Your task to perform on an android device: open wifi settings Image 0: 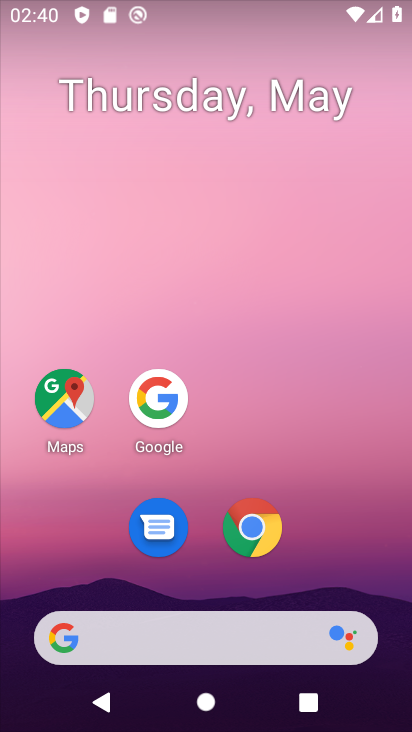
Step 0: drag from (189, 575) to (254, 195)
Your task to perform on an android device: open wifi settings Image 1: 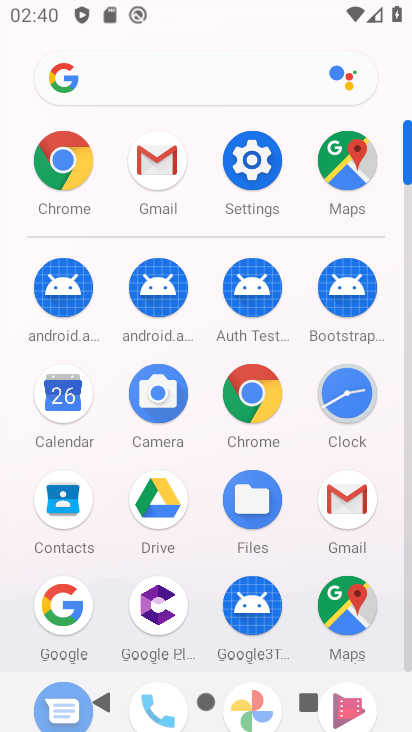
Step 1: click (257, 151)
Your task to perform on an android device: open wifi settings Image 2: 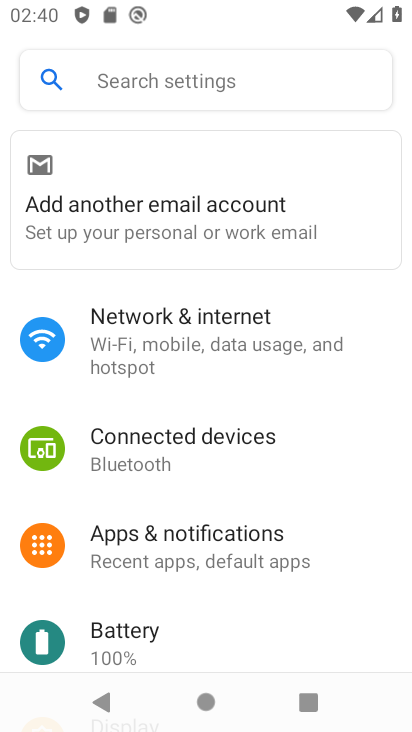
Step 2: click (110, 339)
Your task to perform on an android device: open wifi settings Image 3: 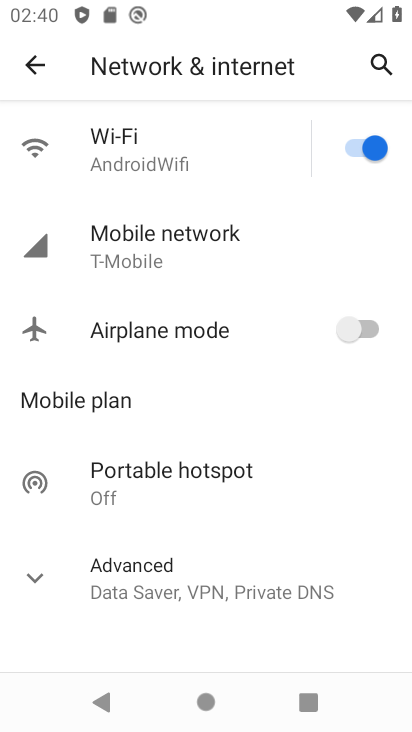
Step 3: click (180, 174)
Your task to perform on an android device: open wifi settings Image 4: 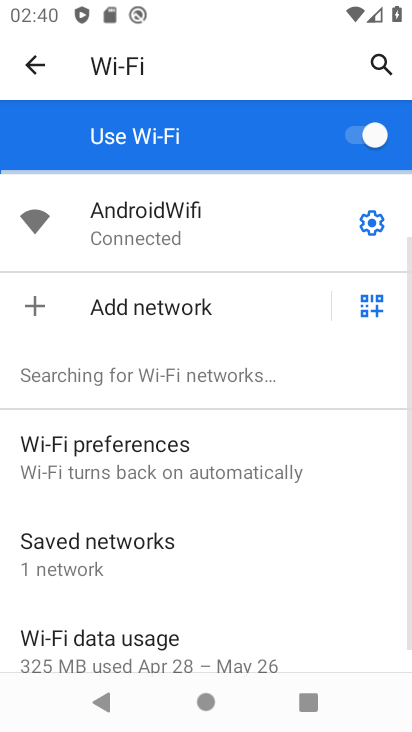
Step 4: click (368, 225)
Your task to perform on an android device: open wifi settings Image 5: 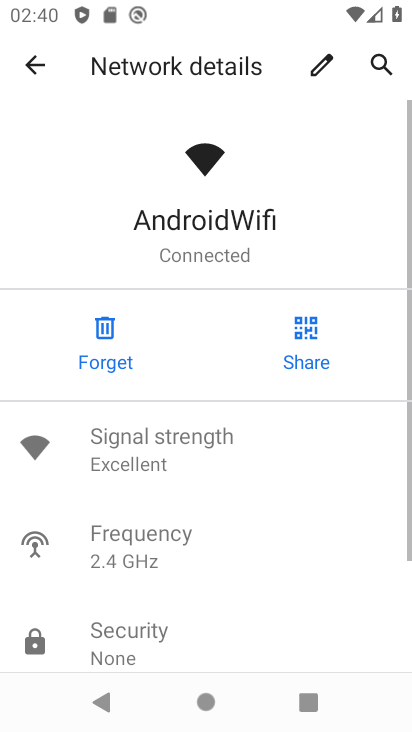
Step 5: task complete